Your task to perform on an android device: Search for Mexican restaurants on Maps Image 0: 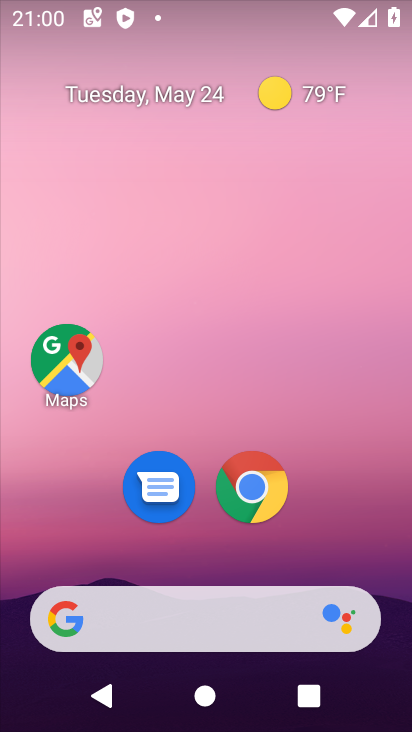
Step 0: press home button
Your task to perform on an android device: Search for Mexican restaurants on Maps Image 1: 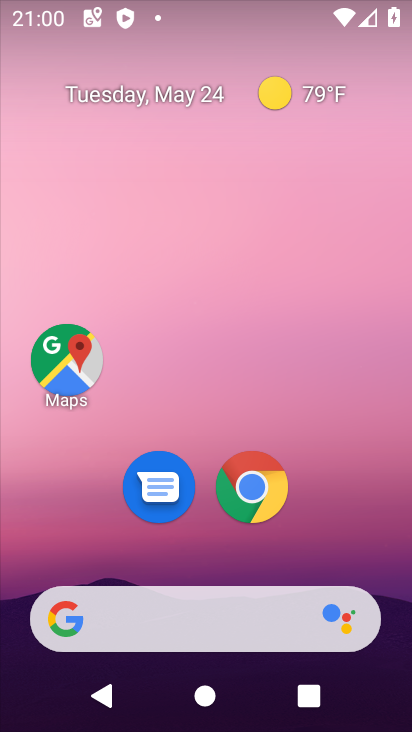
Step 1: click (73, 372)
Your task to perform on an android device: Search for Mexican restaurants on Maps Image 2: 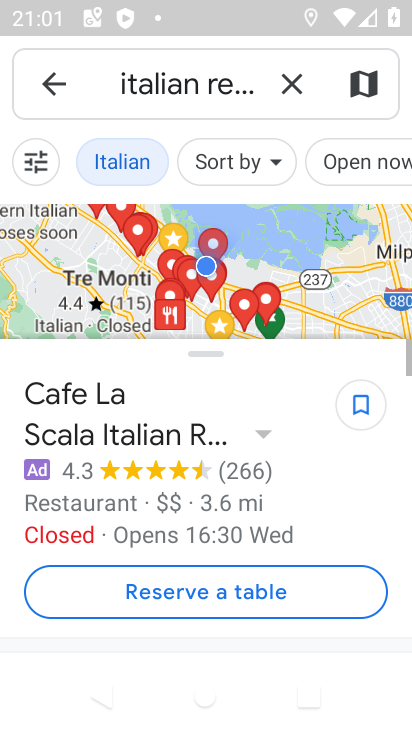
Step 2: click (288, 86)
Your task to perform on an android device: Search for Mexican restaurants on Maps Image 3: 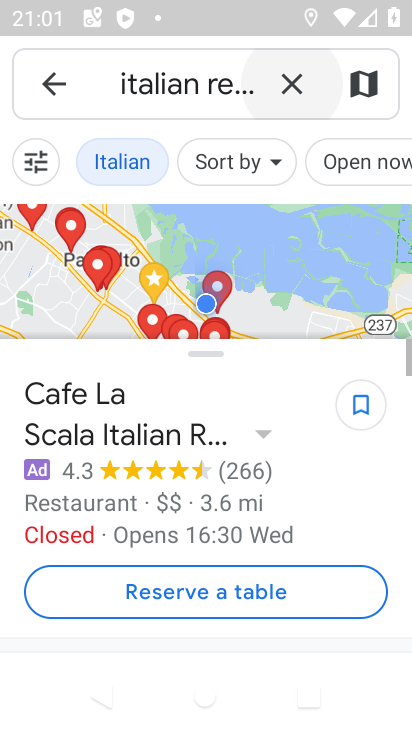
Step 3: click (183, 76)
Your task to perform on an android device: Search for Mexican restaurants on Maps Image 4: 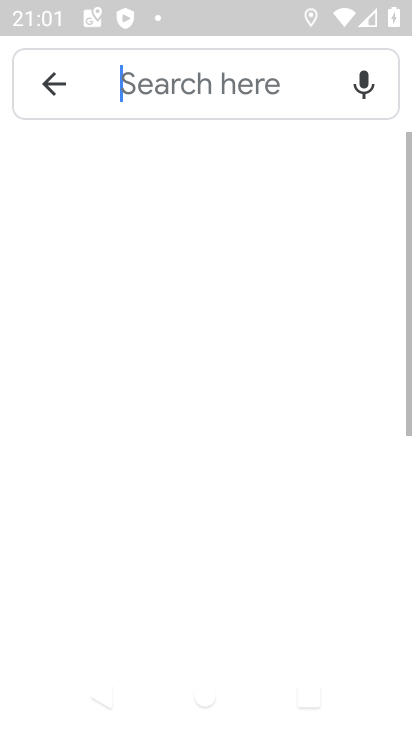
Step 4: click (183, 76)
Your task to perform on an android device: Search for Mexican restaurants on Maps Image 5: 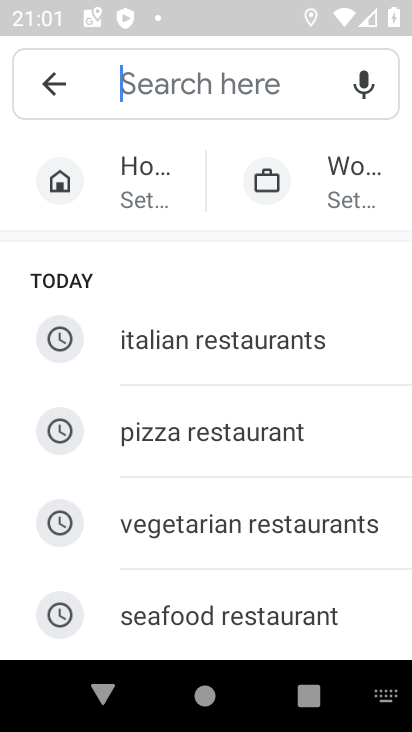
Step 5: type " Mexican restaurants"
Your task to perform on an android device: Search for Mexican restaurants on Maps Image 6: 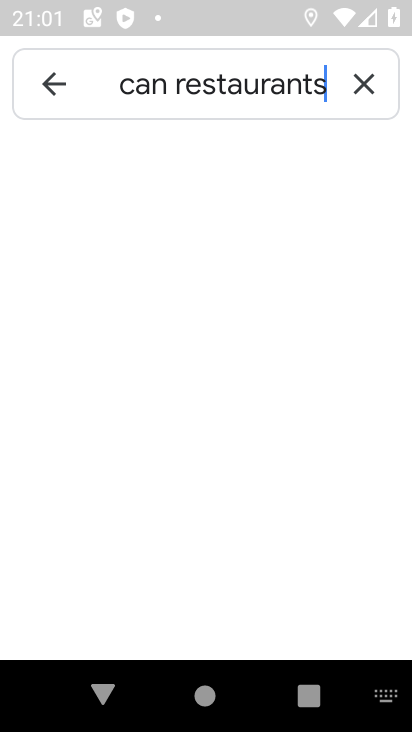
Step 6: type ""
Your task to perform on an android device: Search for Mexican restaurants on Maps Image 7: 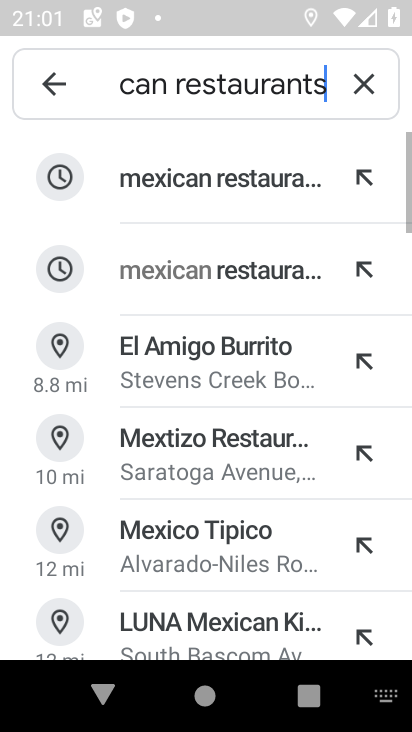
Step 7: click (156, 145)
Your task to perform on an android device: Search for Mexican restaurants on Maps Image 8: 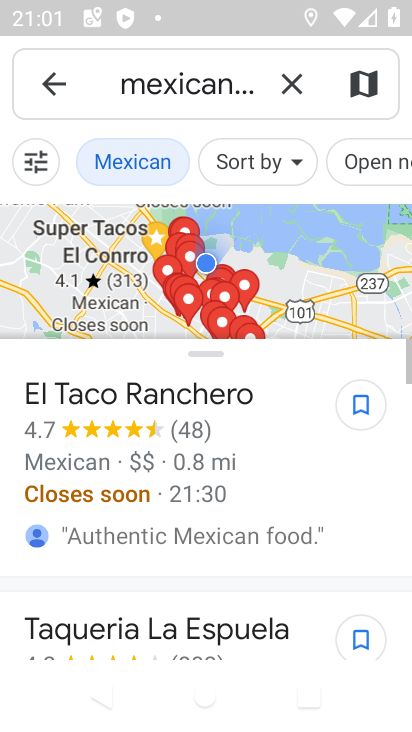
Step 8: task complete